Your task to perform on an android device: toggle notification dots Image 0: 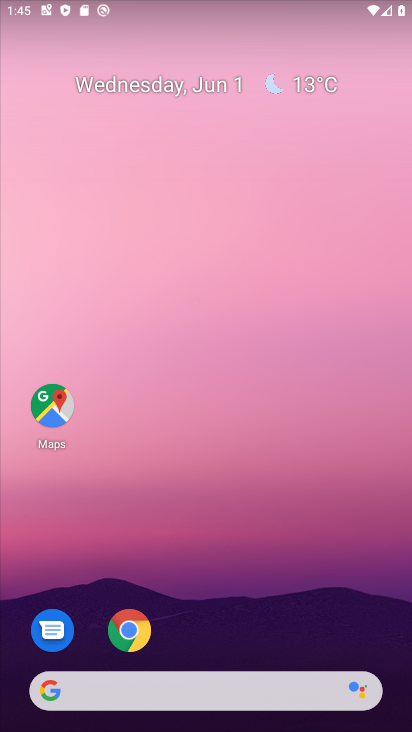
Step 0: press home button
Your task to perform on an android device: toggle notification dots Image 1: 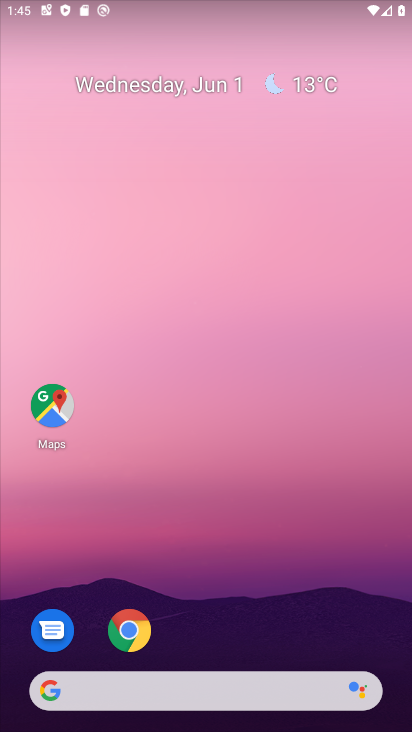
Step 1: drag from (212, 647) to (255, 124)
Your task to perform on an android device: toggle notification dots Image 2: 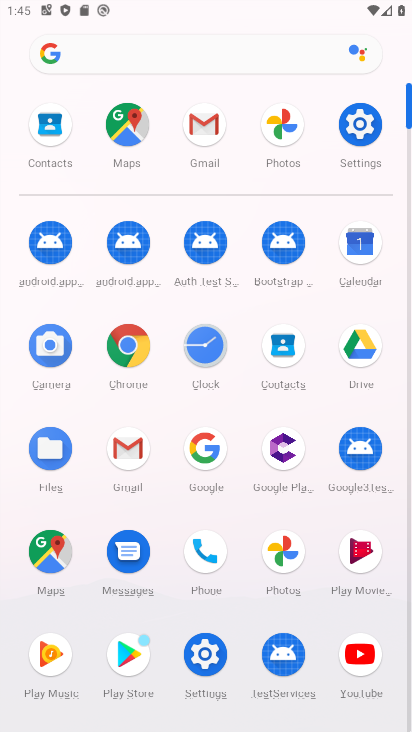
Step 2: click (203, 652)
Your task to perform on an android device: toggle notification dots Image 3: 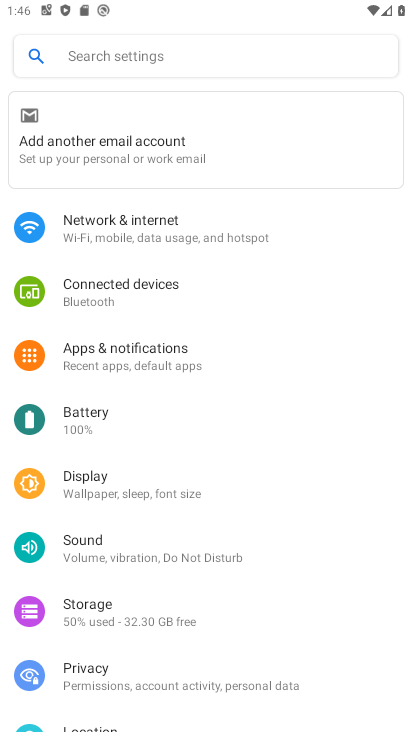
Step 3: click (147, 357)
Your task to perform on an android device: toggle notification dots Image 4: 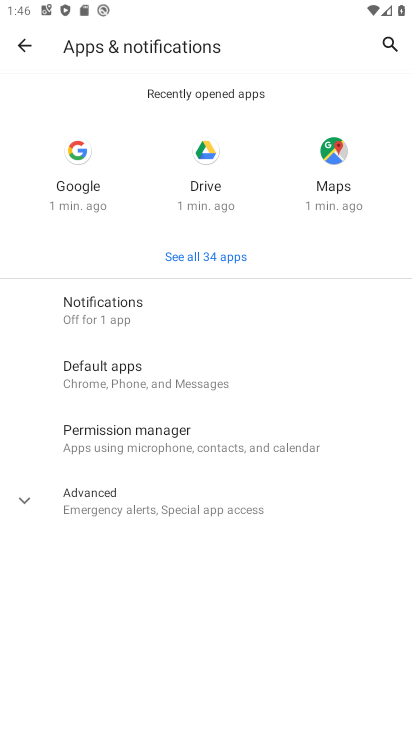
Step 4: click (146, 312)
Your task to perform on an android device: toggle notification dots Image 5: 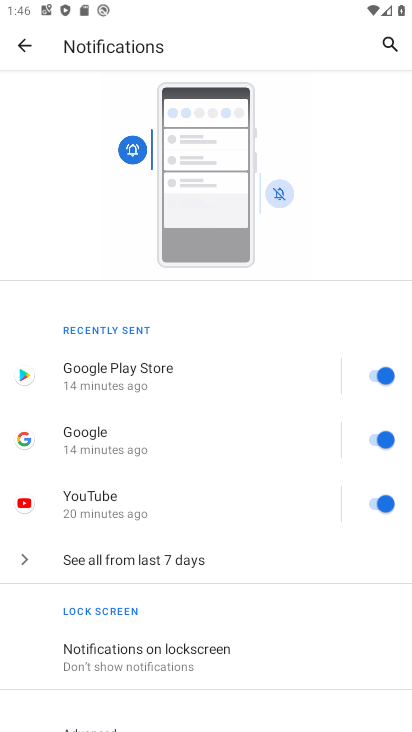
Step 5: drag from (232, 676) to (274, 255)
Your task to perform on an android device: toggle notification dots Image 6: 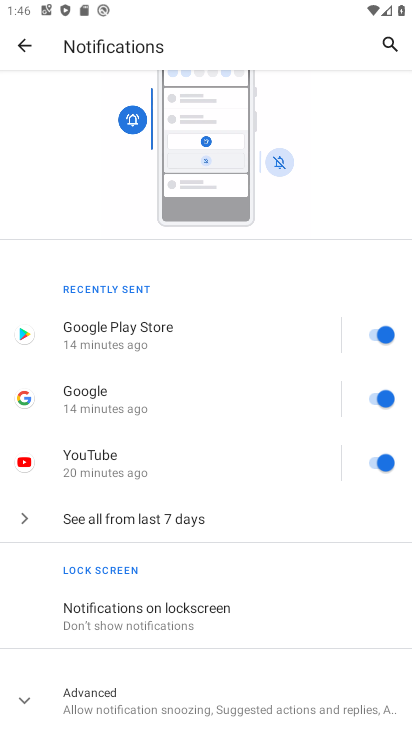
Step 6: click (131, 698)
Your task to perform on an android device: toggle notification dots Image 7: 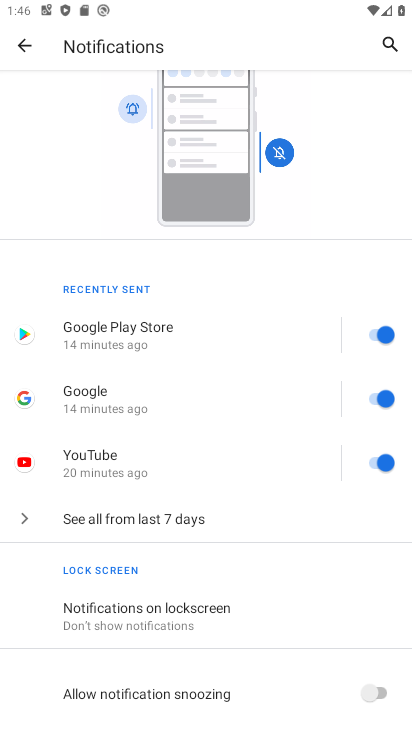
Step 7: drag from (218, 652) to (274, 213)
Your task to perform on an android device: toggle notification dots Image 8: 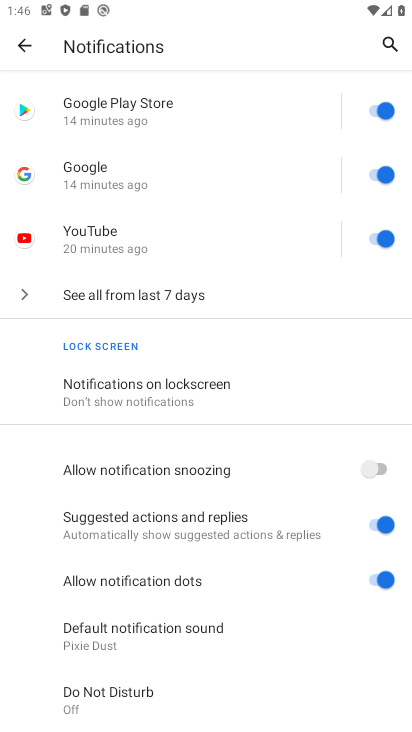
Step 8: click (381, 574)
Your task to perform on an android device: toggle notification dots Image 9: 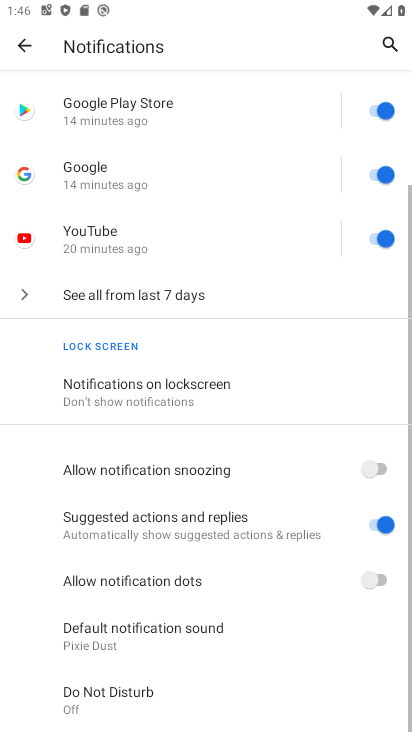
Step 9: task complete